Your task to perform on an android device: open a bookmark in the chrome app Image 0: 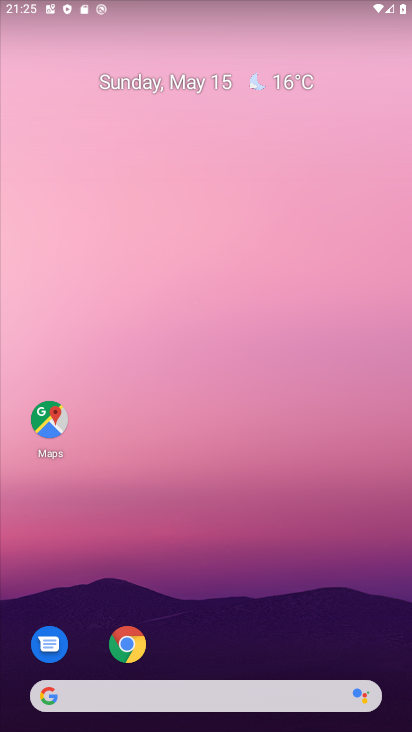
Step 0: click (126, 640)
Your task to perform on an android device: open a bookmark in the chrome app Image 1: 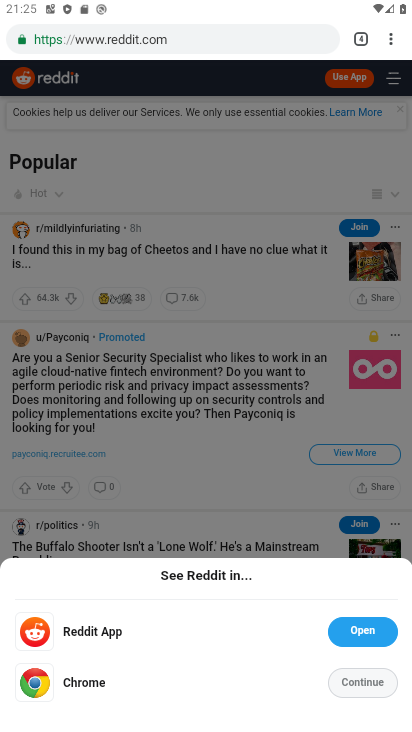
Step 1: drag from (392, 34) to (264, 156)
Your task to perform on an android device: open a bookmark in the chrome app Image 2: 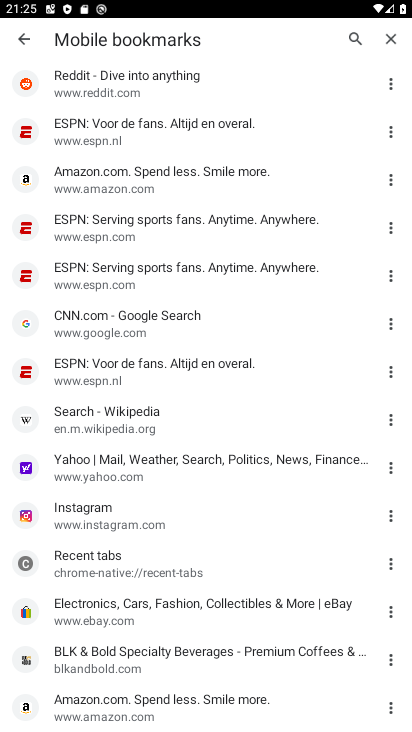
Step 2: click (130, 173)
Your task to perform on an android device: open a bookmark in the chrome app Image 3: 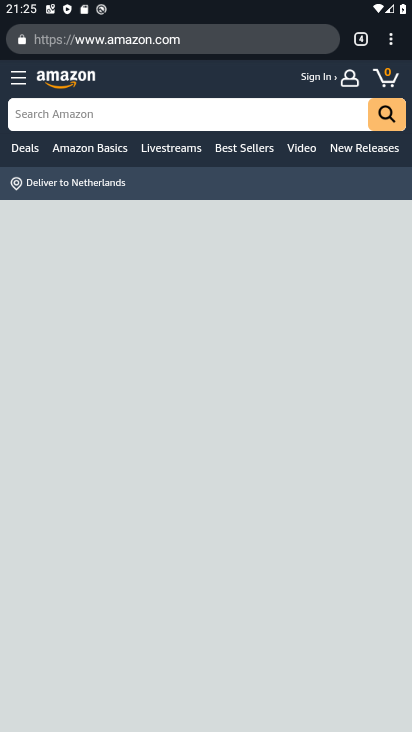
Step 3: task complete